Your task to perform on an android device: Open network settings Image 0: 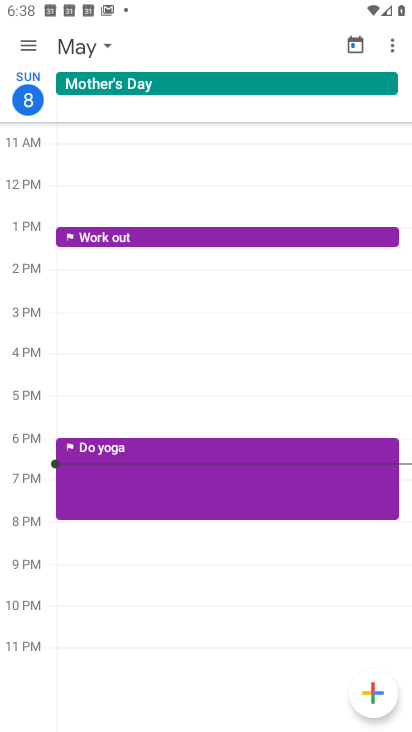
Step 0: press home button
Your task to perform on an android device: Open network settings Image 1: 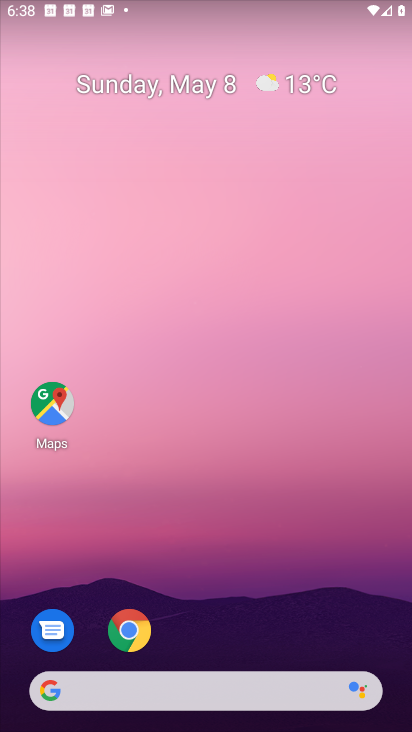
Step 1: drag from (244, 612) to (218, 234)
Your task to perform on an android device: Open network settings Image 2: 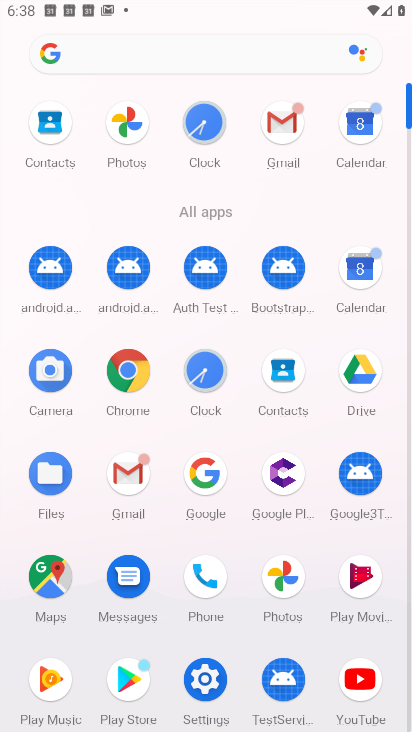
Step 2: click (203, 683)
Your task to perform on an android device: Open network settings Image 3: 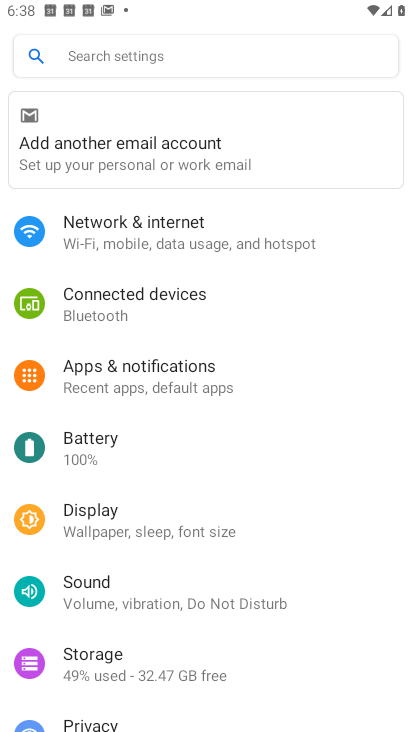
Step 3: click (111, 225)
Your task to perform on an android device: Open network settings Image 4: 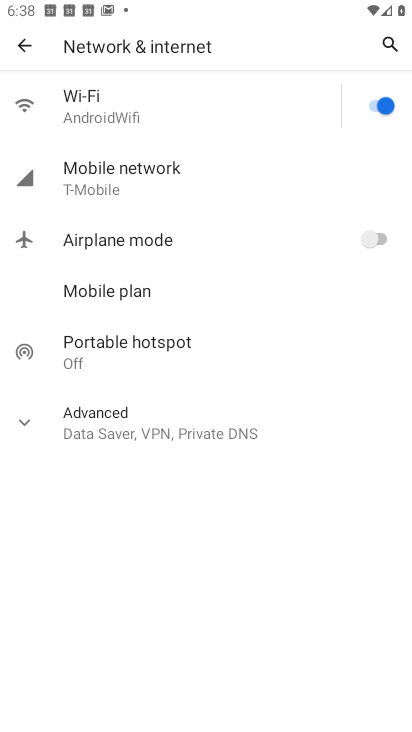
Step 4: task complete